Your task to perform on an android device: Check the news Image 0: 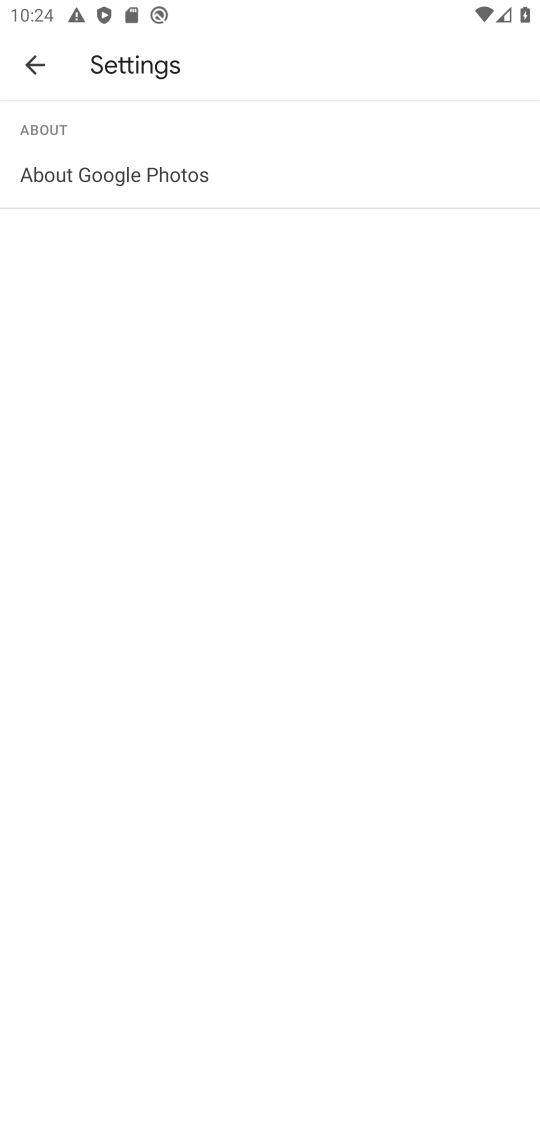
Step 0: drag from (342, 915) to (416, 333)
Your task to perform on an android device: Check the news Image 1: 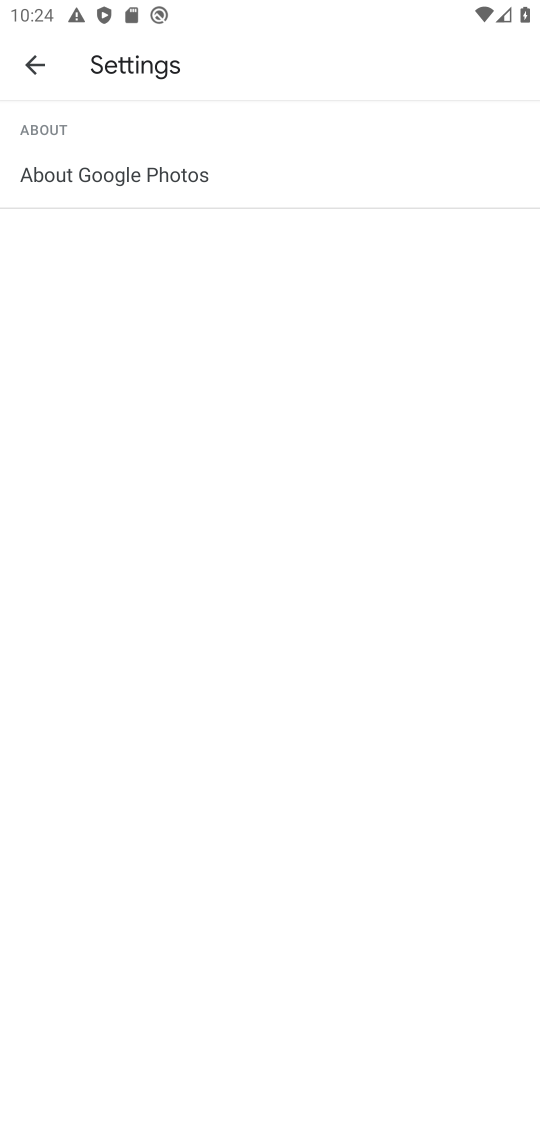
Step 1: press home button
Your task to perform on an android device: Check the news Image 2: 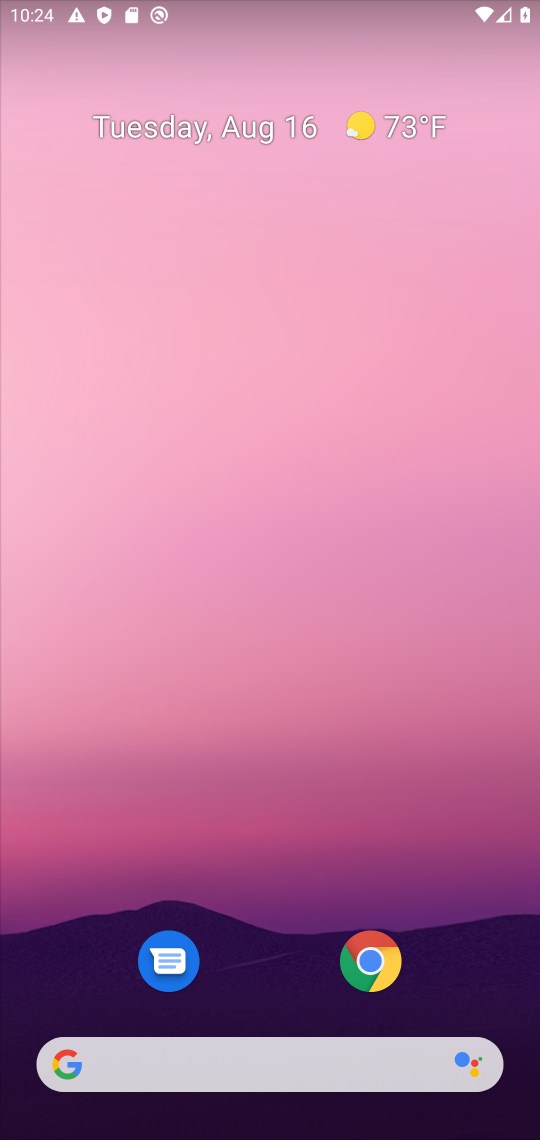
Step 2: click (389, 1040)
Your task to perform on an android device: Check the news Image 3: 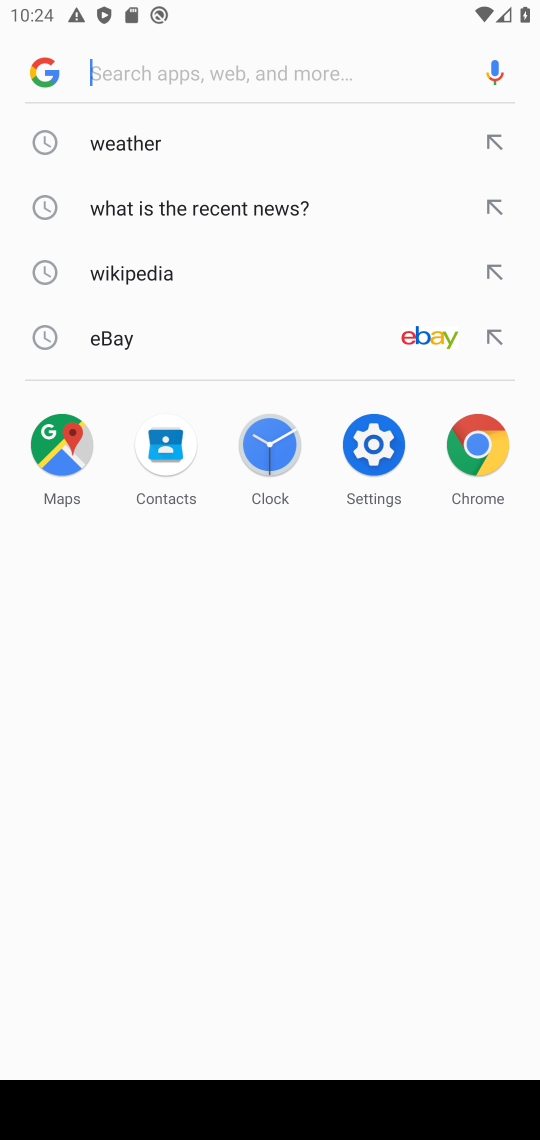
Step 3: type "Check the news"
Your task to perform on an android device: Check the news Image 4: 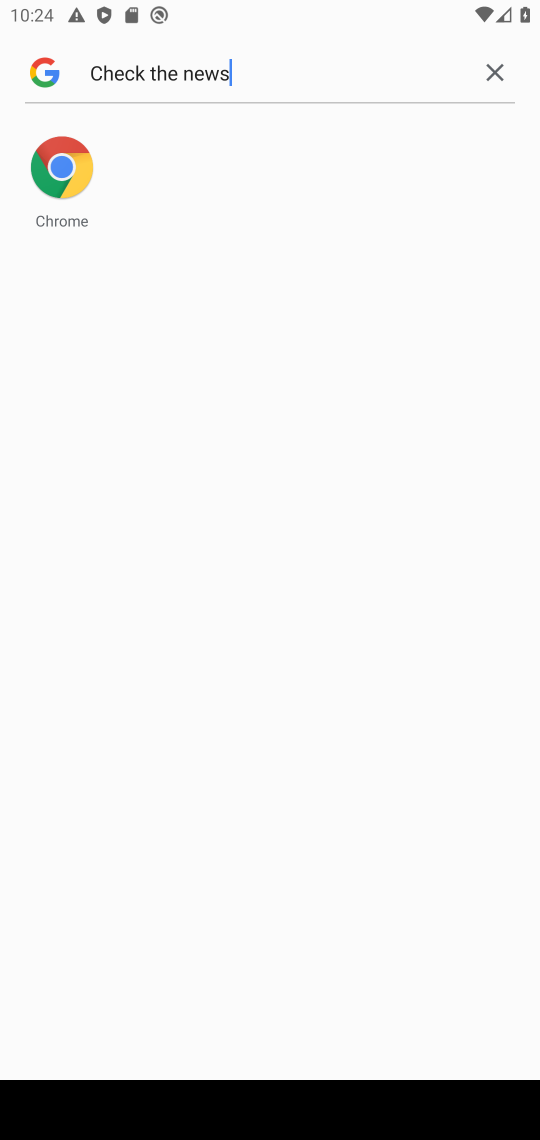
Step 4: press enter
Your task to perform on an android device: Check the news Image 5: 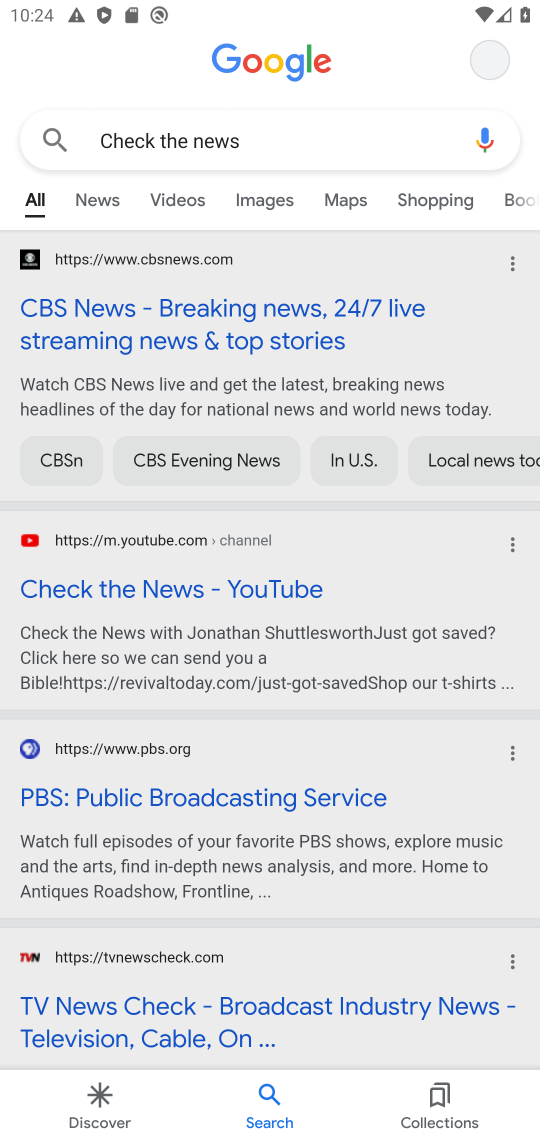
Step 5: task complete